Your task to perform on an android device: make emails show in primary in the gmail app Image 0: 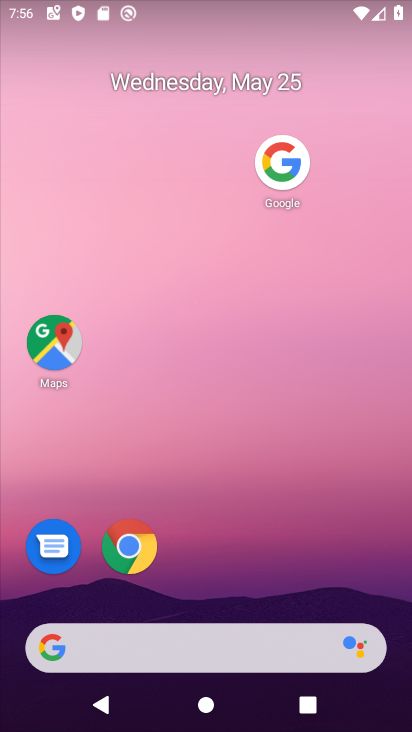
Step 0: drag from (366, 130) to (349, 95)
Your task to perform on an android device: make emails show in primary in the gmail app Image 1: 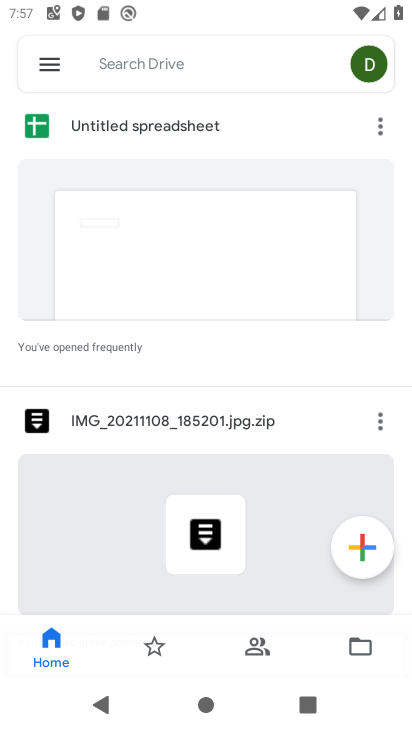
Step 1: press home button
Your task to perform on an android device: make emails show in primary in the gmail app Image 2: 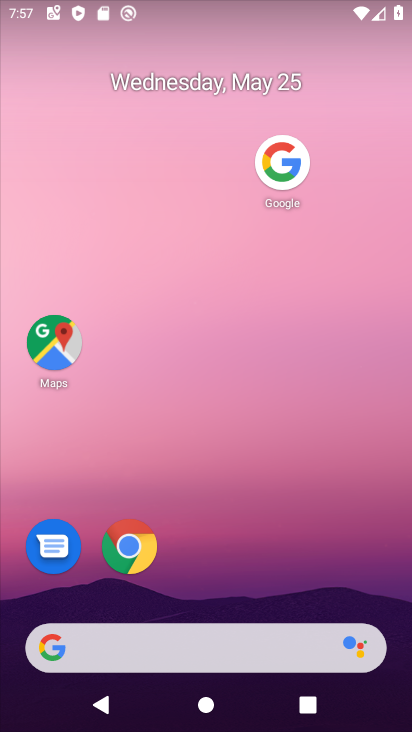
Step 2: drag from (212, 643) to (327, 179)
Your task to perform on an android device: make emails show in primary in the gmail app Image 3: 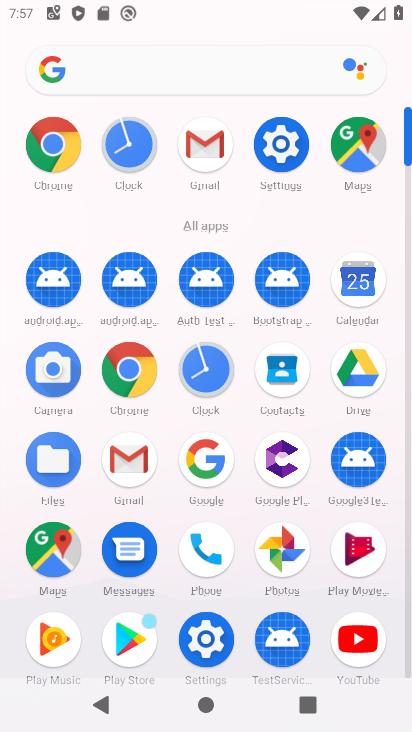
Step 3: click (198, 158)
Your task to perform on an android device: make emails show in primary in the gmail app Image 4: 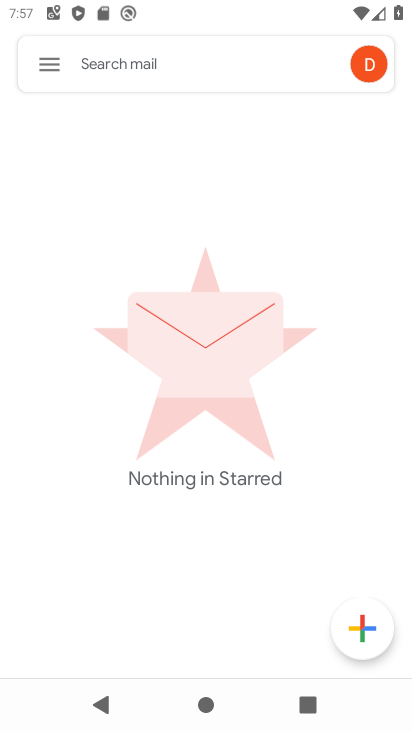
Step 4: click (52, 64)
Your task to perform on an android device: make emails show in primary in the gmail app Image 5: 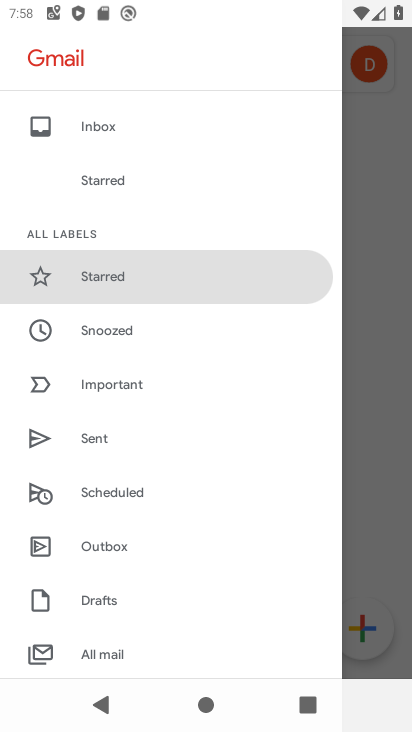
Step 5: drag from (186, 564) to (330, 45)
Your task to perform on an android device: make emails show in primary in the gmail app Image 6: 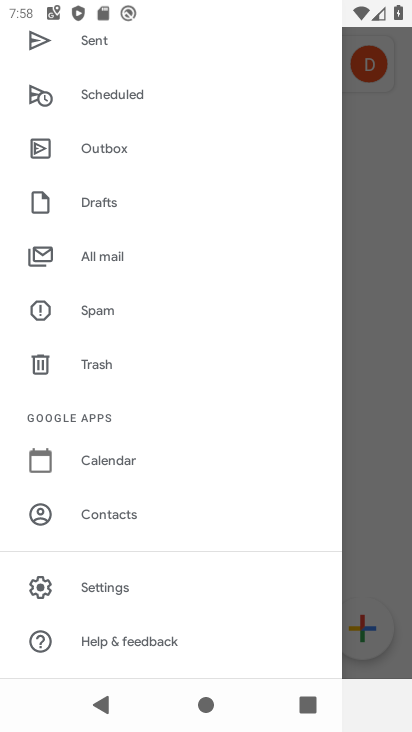
Step 6: click (121, 589)
Your task to perform on an android device: make emails show in primary in the gmail app Image 7: 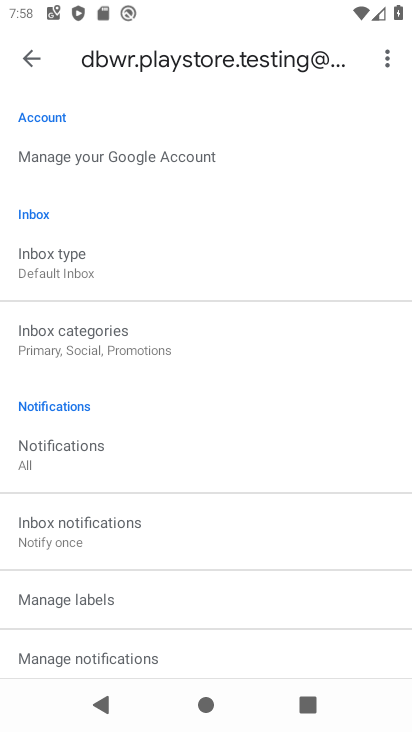
Step 7: click (129, 345)
Your task to perform on an android device: make emails show in primary in the gmail app Image 8: 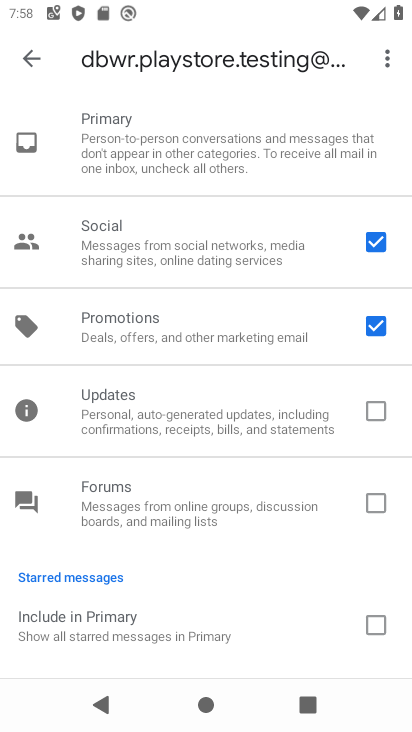
Step 8: click (381, 238)
Your task to perform on an android device: make emails show in primary in the gmail app Image 9: 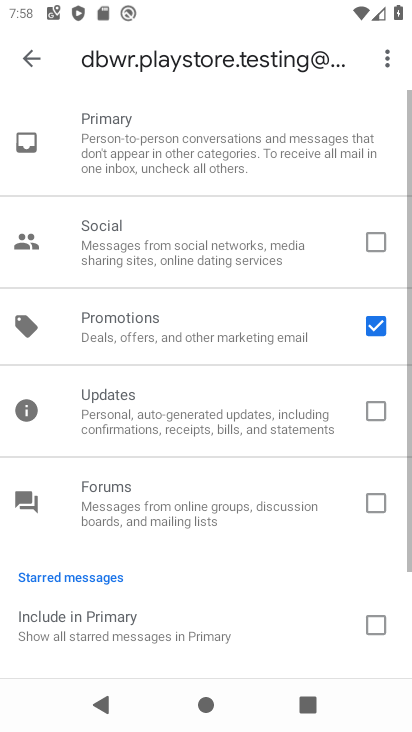
Step 9: click (377, 328)
Your task to perform on an android device: make emails show in primary in the gmail app Image 10: 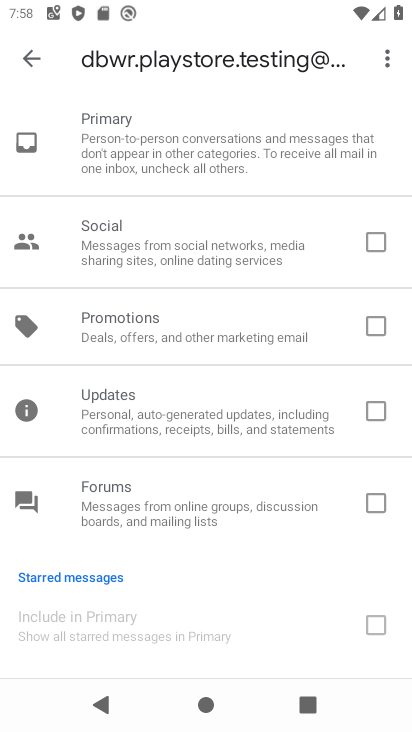
Step 10: click (38, 60)
Your task to perform on an android device: make emails show in primary in the gmail app Image 11: 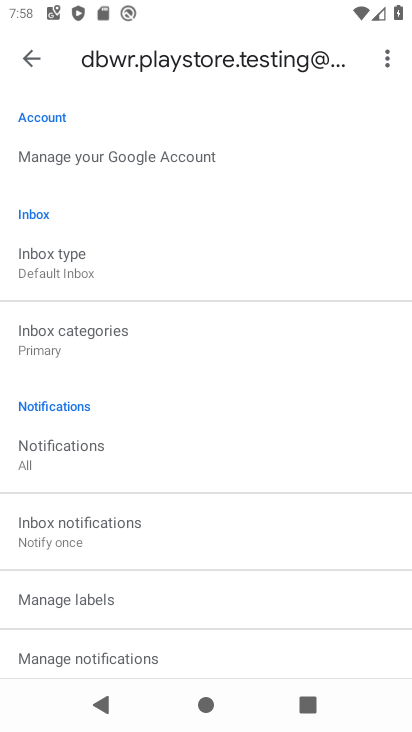
Step 11: task complete